Your task to perform on an android device: Go to Yahoo.com Image 0: 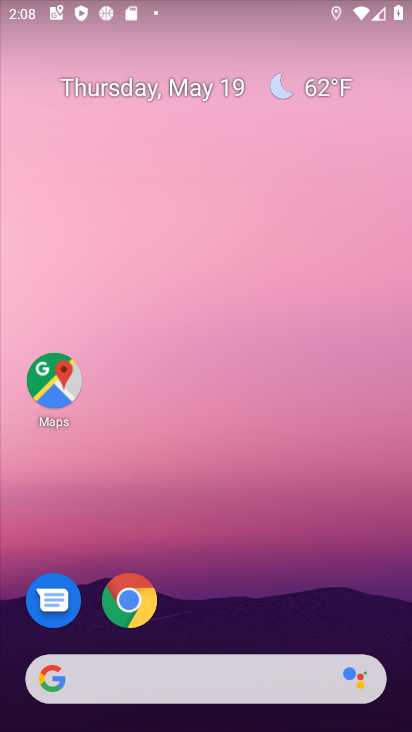
Step 0: click (140, 602)
Your task to perform on an android device: Go to Yahoo.com Image 1: 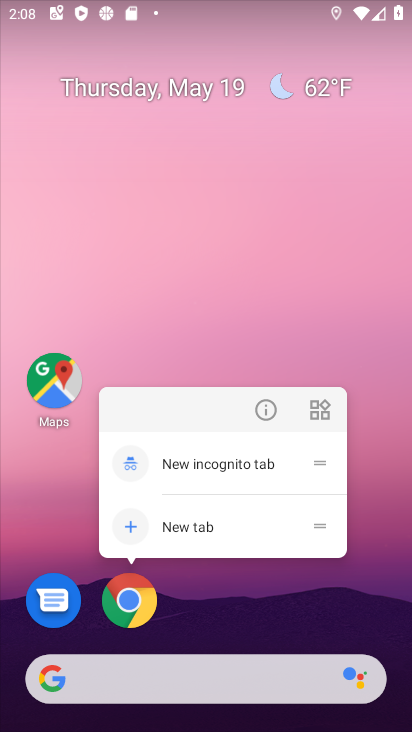
Step 1: click (138, 589)
Your task to perform on an android device: Go to Yahoo.com Image 2: 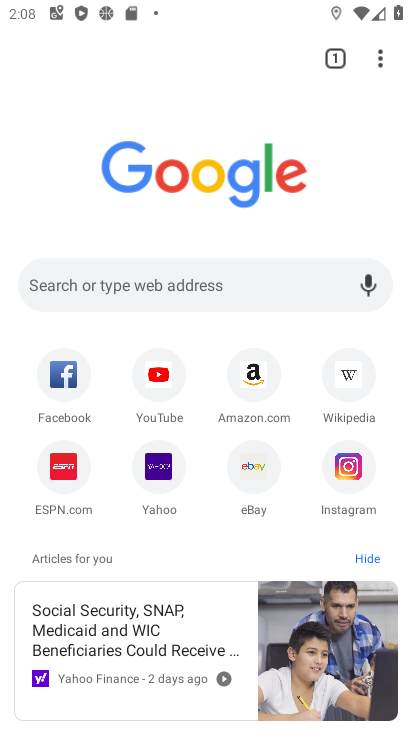
Step 2: click (166, 469)
Your task to perform on an android device: Go to Yahoo.com Image 3: 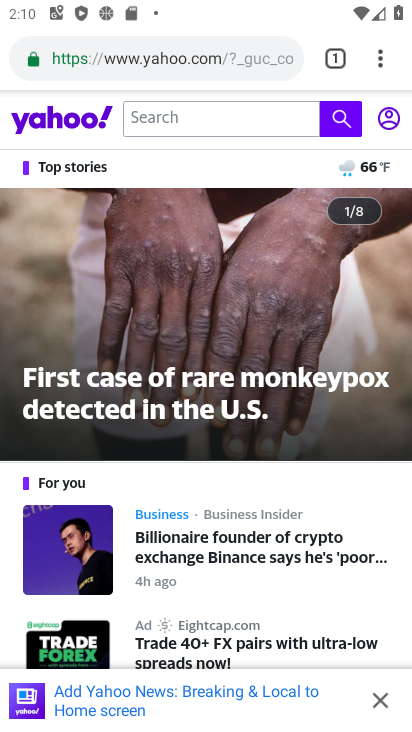
Step 3: task complete